Your task to perform on an android device: What is the news today? Image 0: 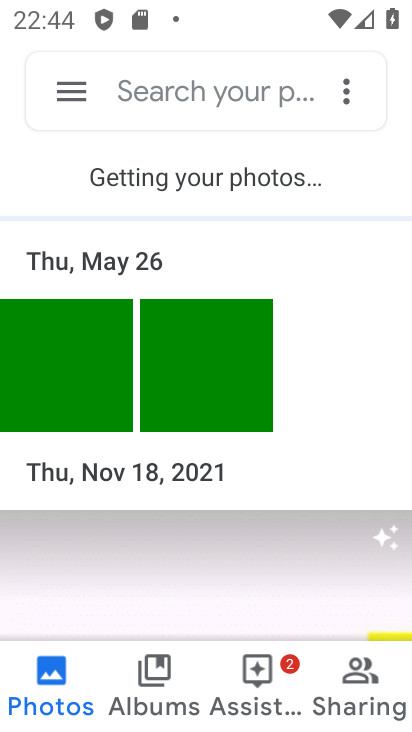
Step 0: press home button
Your task to perform on an android device: What is the news today? Image 1: 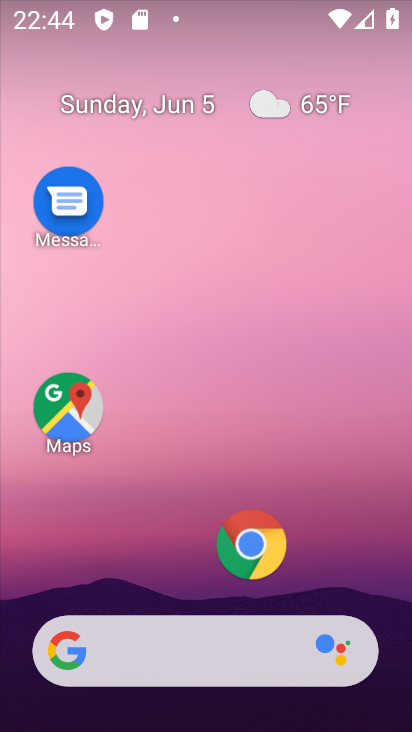
Step 1: drag from (110, 581) to (110, 193)
Your task to perform on an android device: What is the news today? Image 2: 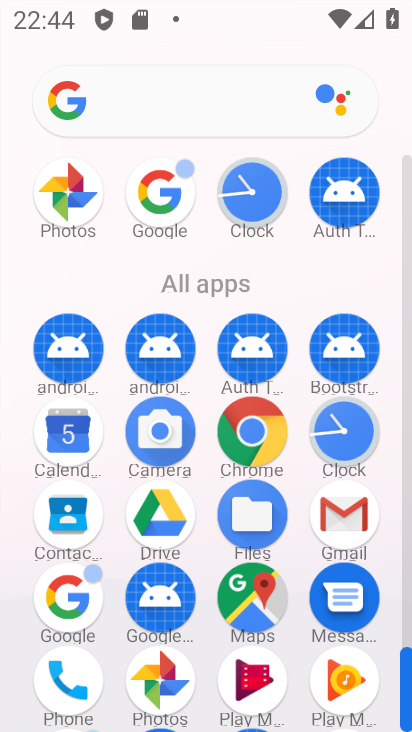
Step 2: click (75, 600)
Your task to perform on an android device: What is the news today? Image 3: 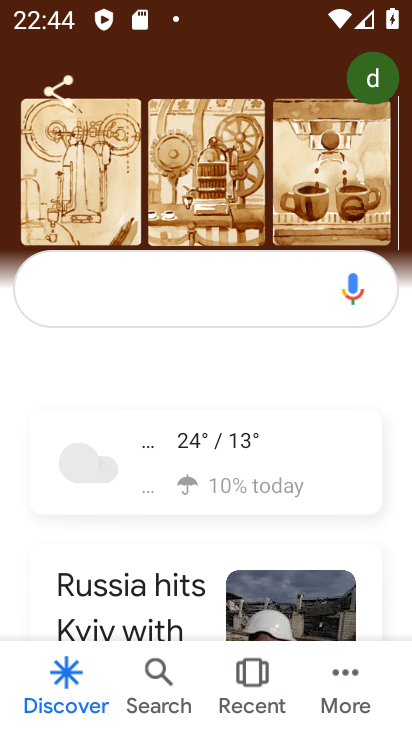
Step 3: click (133, 301)
Your task to perform on an android device: What is the news today? Image 4: 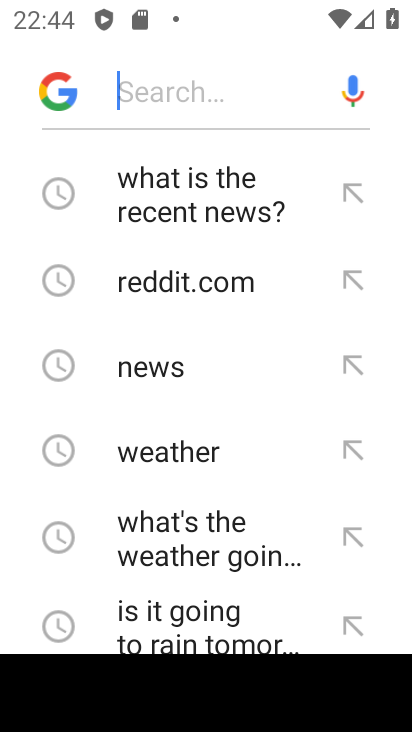
Step 4: click (159, 381)
Your task to perform on an android device: What is the news today? Image 5: 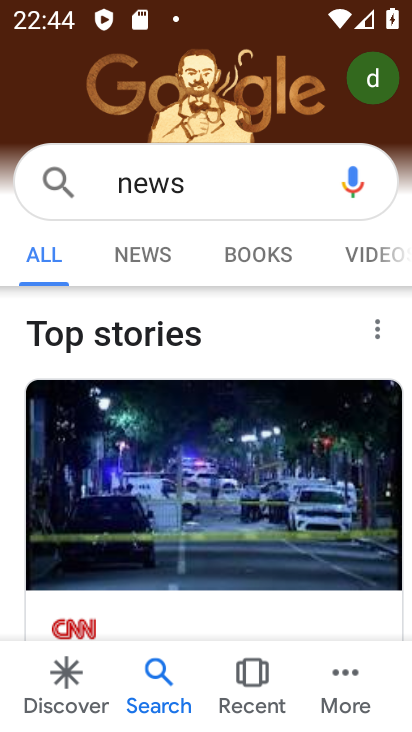
Step 5: task complete